Your task to perform on an android device: turn notification dots off Image 0: 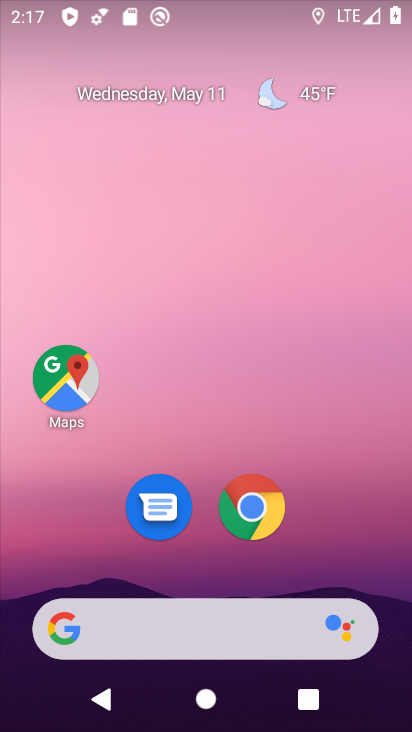
Step 0: drag from (335, 522) to (321, 29)
Your task to perform on an android device: turn notification dots off Image 1: 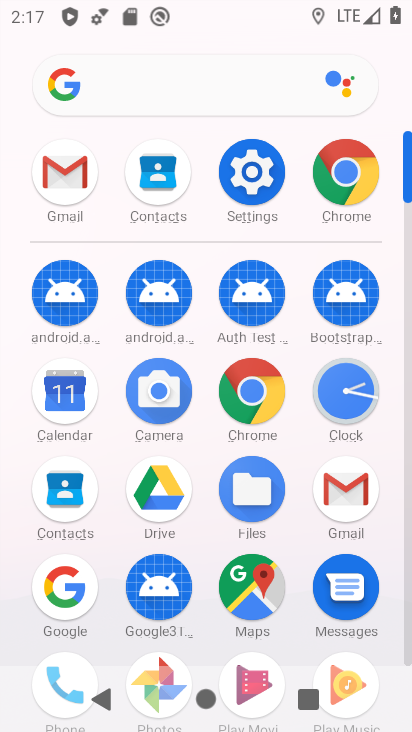
Step 1: click (252, 170)
Your task to perform on an android device: turn notification dots off Image 2: 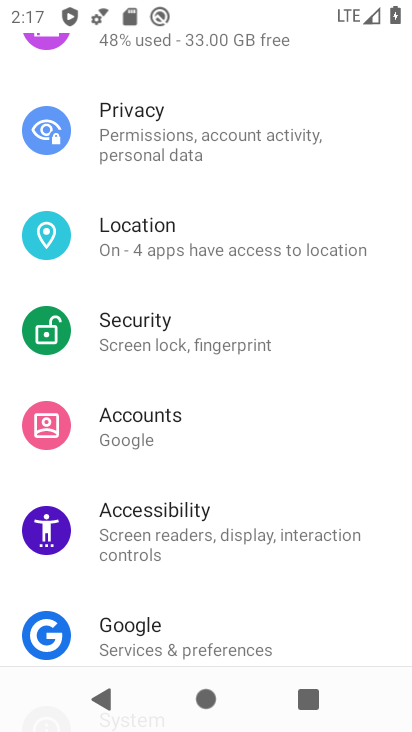
Step 2: drag from (243, 495) to (246, 85)
Your task to perform on an android device: turn notification dots off Image 3: 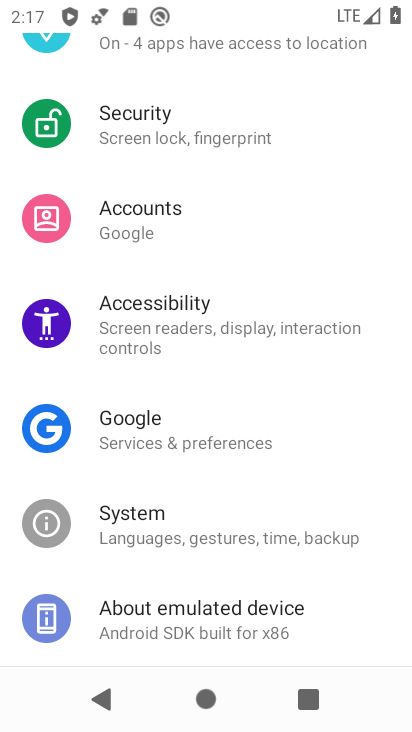
Step 3: drag from (202, 565) to (232, 267)
Your task to perform on an android device: turn notification dots off Image 4: 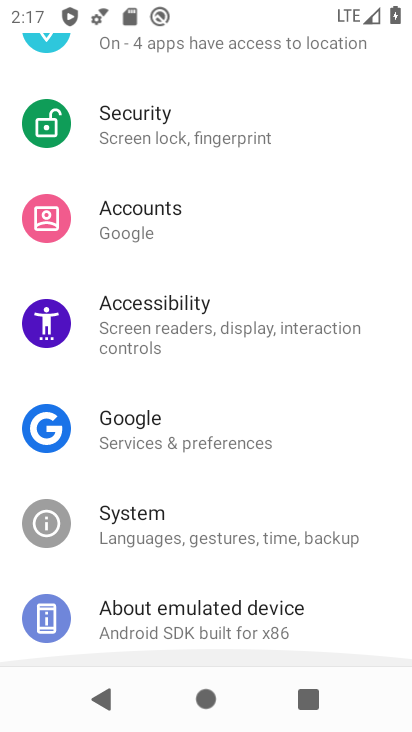
Step 4: drag from (249, 173) to (244, 493)
Your task to perform on an android device: turn notification dots off Image 5: 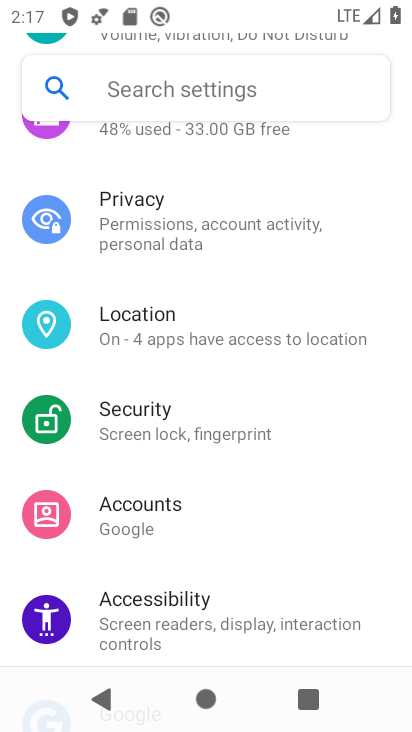
Step 5: drag from (201, 268) to (200, 590)
Your task to perform on an android device: turn notification dots off Image 6: 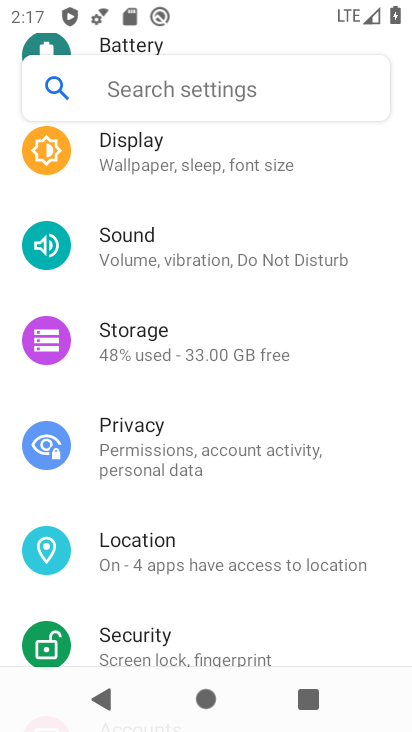
Step 6: drag from (241, 264) to (237, 563)
Your task to perform on an android device: turn notification dots off Image 7: 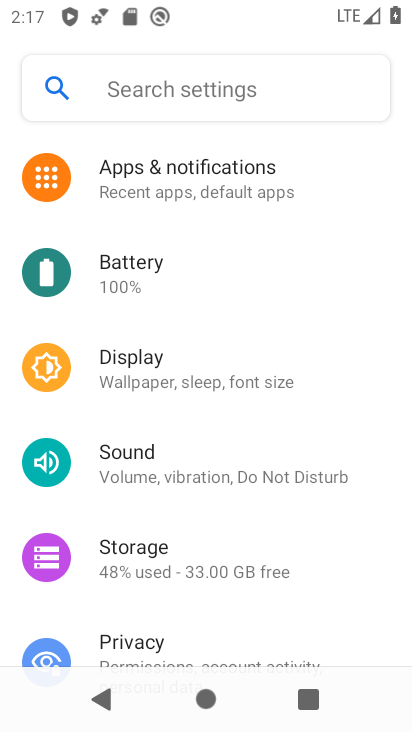
Step 7: click (212, 183)
Your task to perform on an android device: turn notification dots off Image 8: 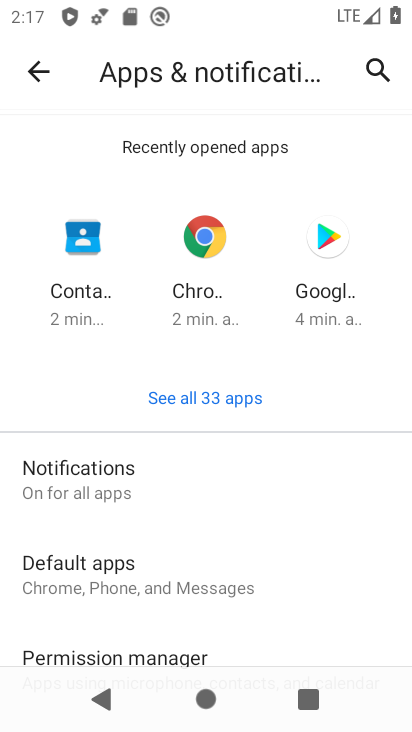
Step 8: click (138, 488)
Your task to perform on an android device: turn notification dots off Image 9: 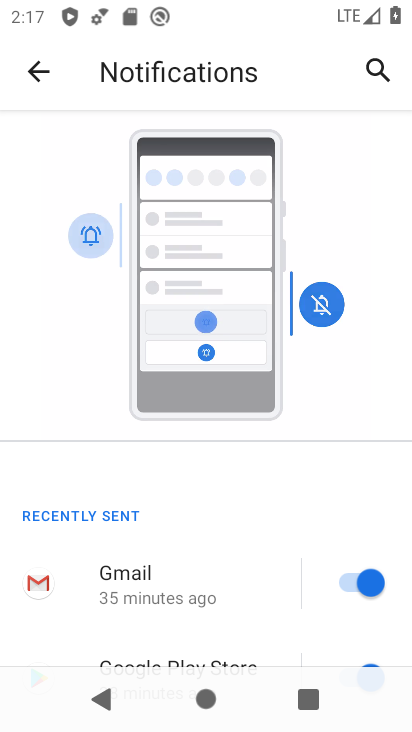
Step 9: drag from (174, 578) to (211, 140)
Your task to perform on an android device: turn notification dots off Image 10: 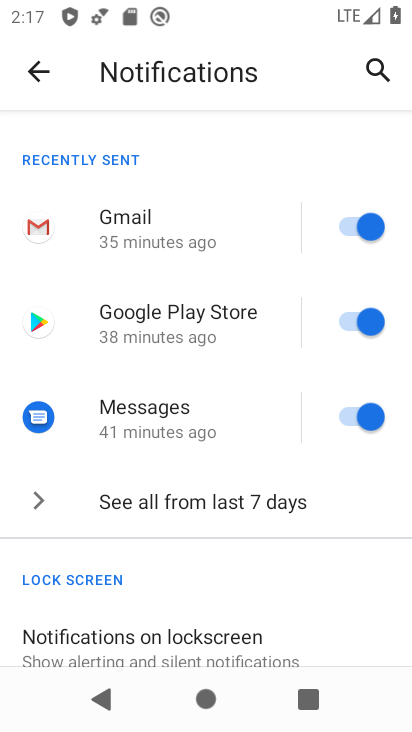
Step 10: drag from (193, 553) to (216, 179)
Your task to perform on an android device: turn notification dots off Image 11: 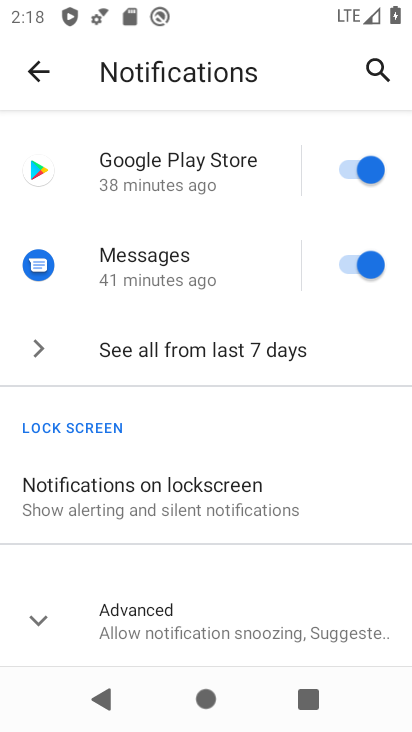
Step 11: drag from (170, 603) to (168, 204)
Your task to perform on an android device: turn notification dots off Image 12: 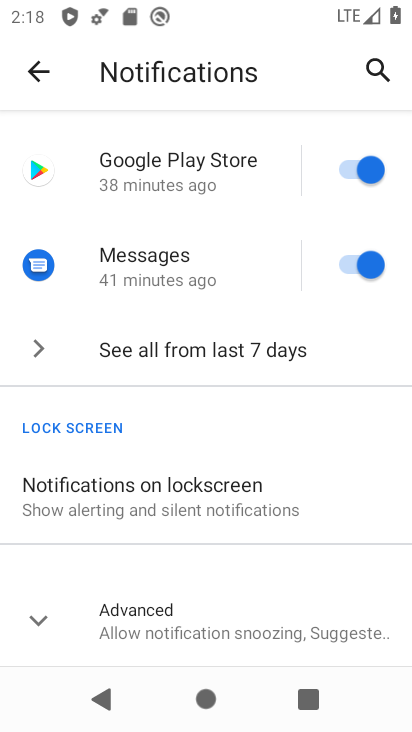
Step 12: click (41, 616)
Your task to perform on an android device: turn notification dots off Image 13: 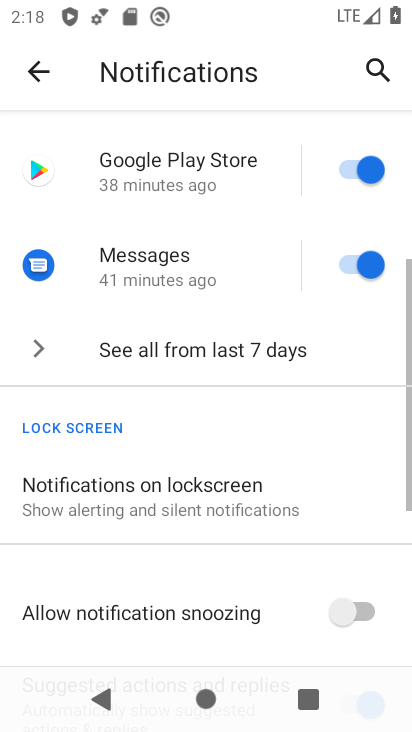
Step 13: task complete